Your task to perform on an android device: open app "Grab" (install if not already installed), go to login, and select forgot password Image 0: 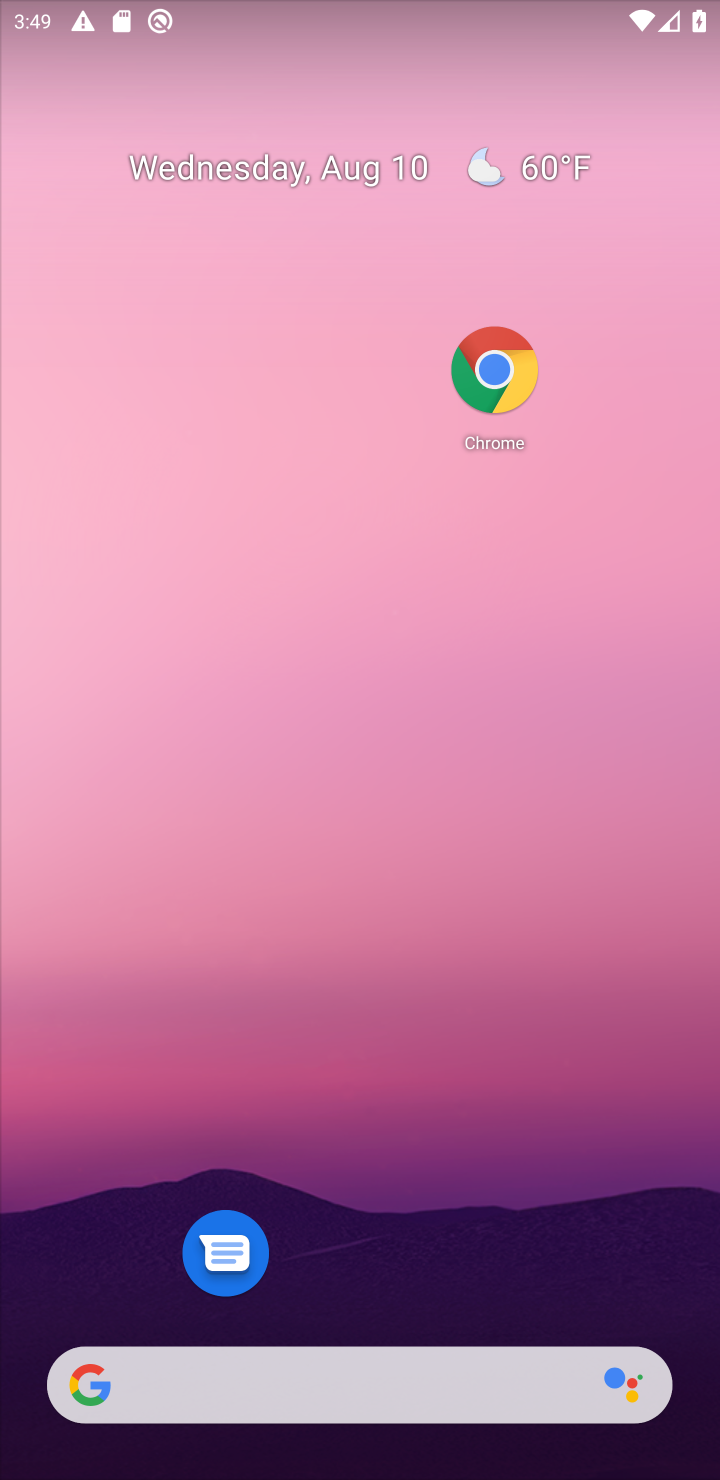
Step 0: drag from (292, 1231) to (288, 237)
Your task to perform on an android device: open app "Grab" (install if not already installed), go to login, and select forgot password Image 1: 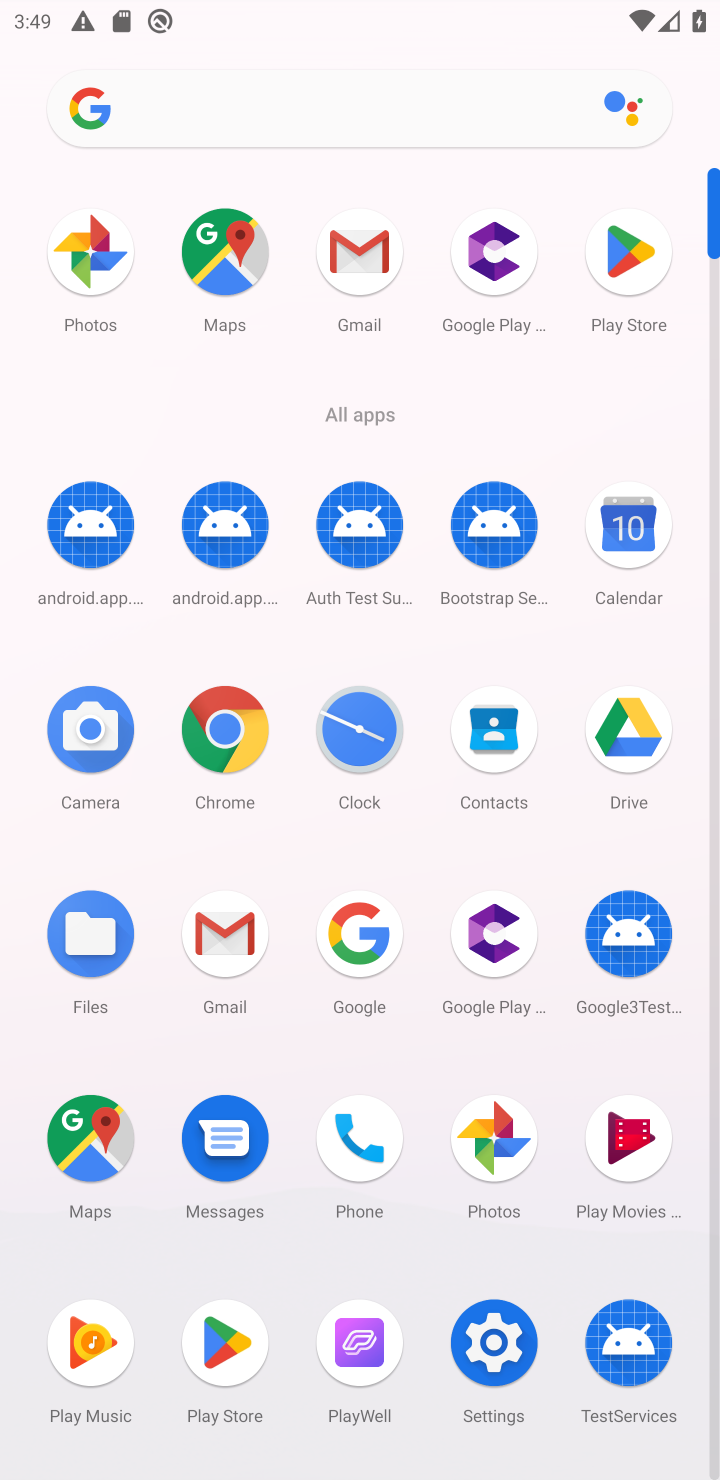
Step 1: click (641, 236)
Your task to perform on an android device: open app "Grab" (install if not already installed), go to login, and select forgot password Image 2: 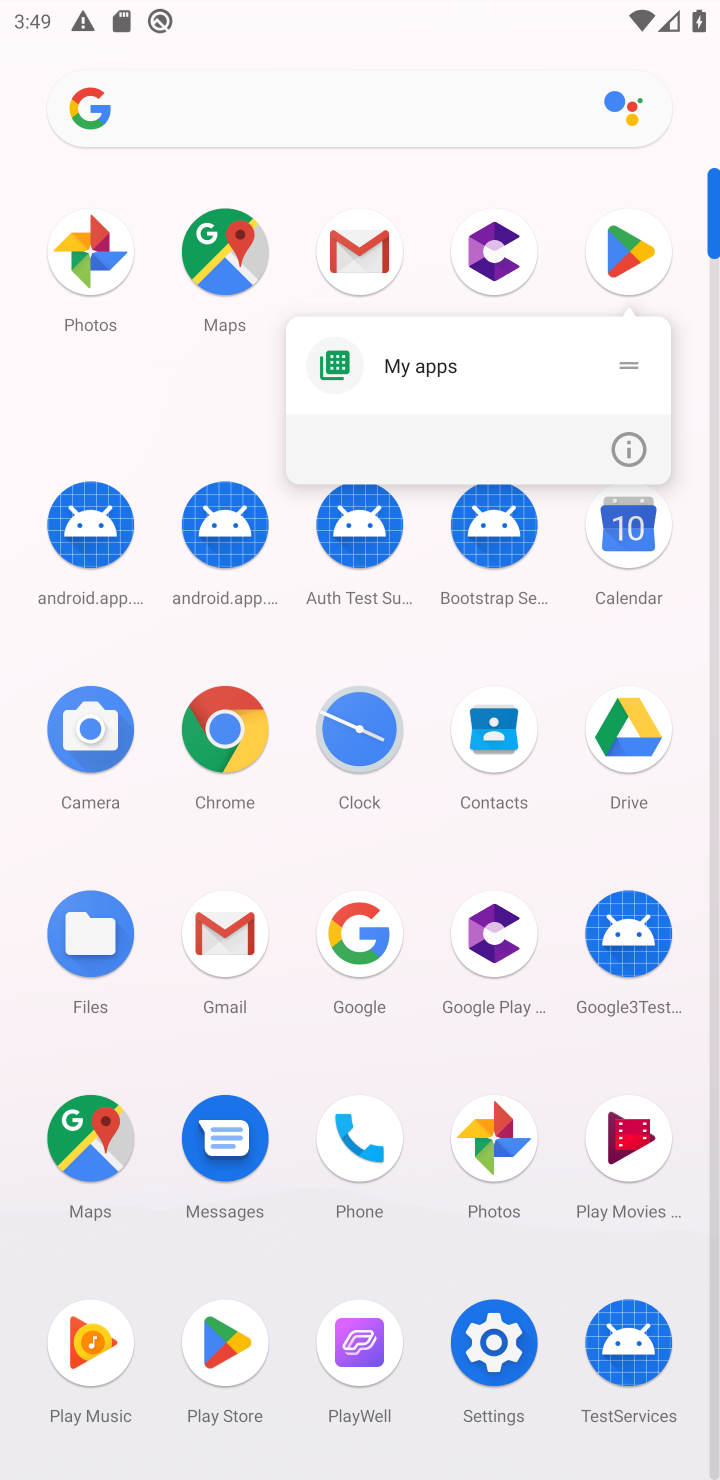
Step 2: click (626, 255)
Your task to perform on an android device: open app "Grab" (install if not already installed), go to login, and select forgot password Image 3: 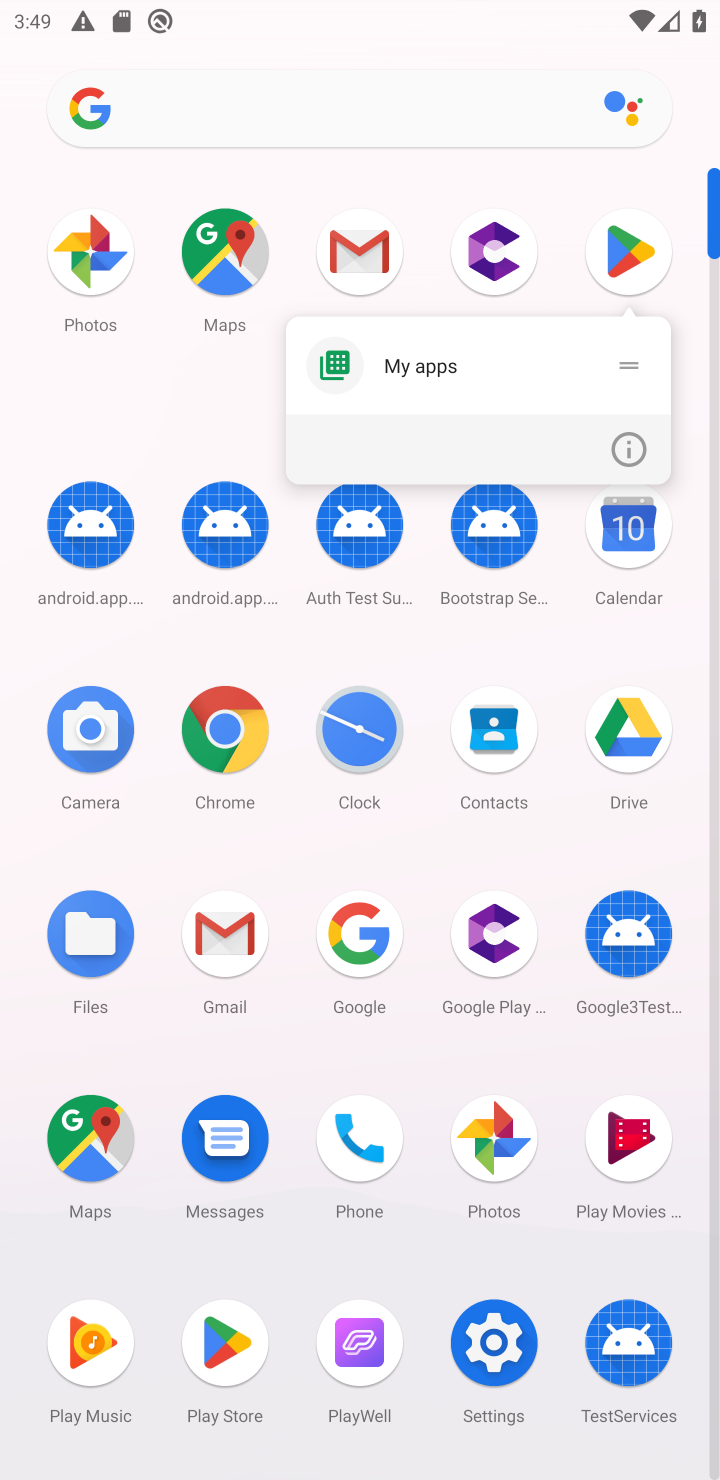
Step 3: click (626, 255)
Your task to perform on an android device: open app "Grab" (install if not already installed), go to login, and select forgot password Image 4: 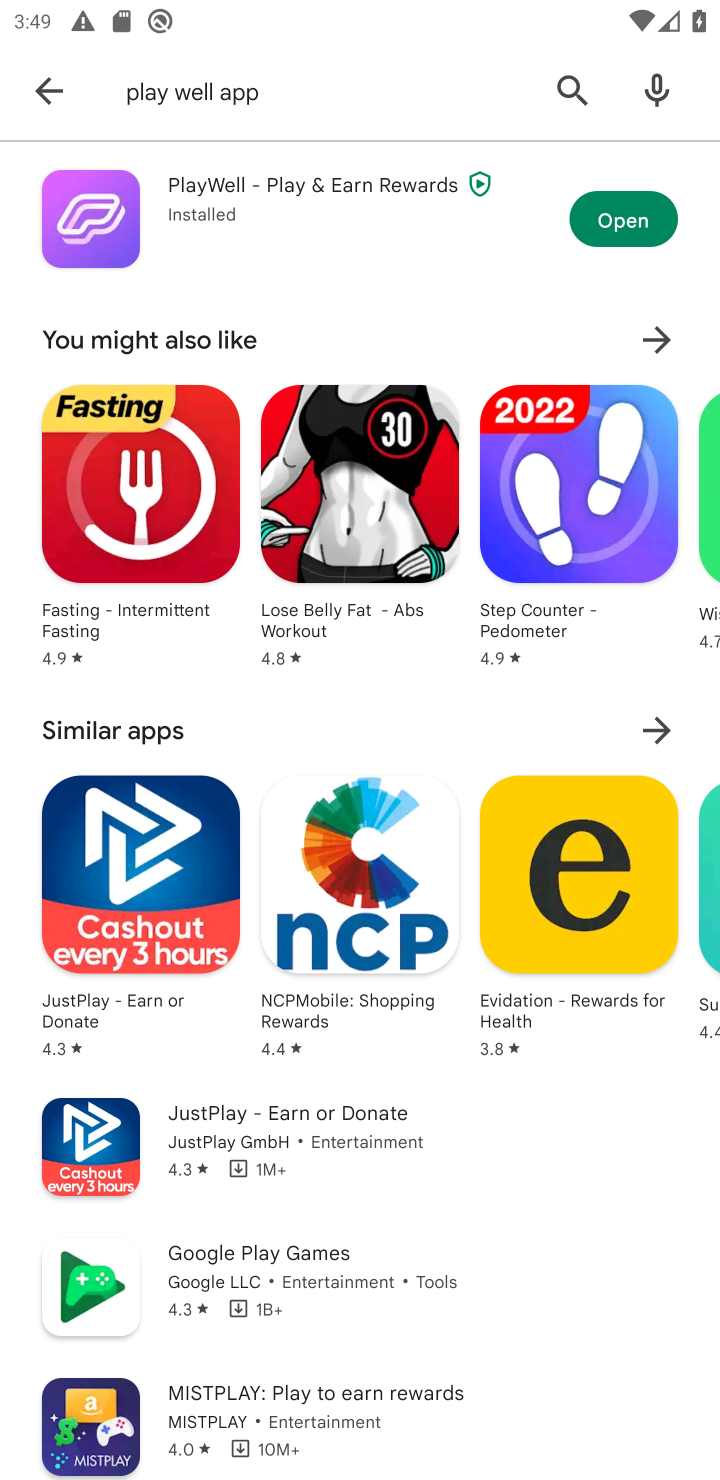
Step 4: click (37, 85)
Your task to perform on an android device: open app "Grab" (install if not already installed), go to login, and select forgot password Image 5: 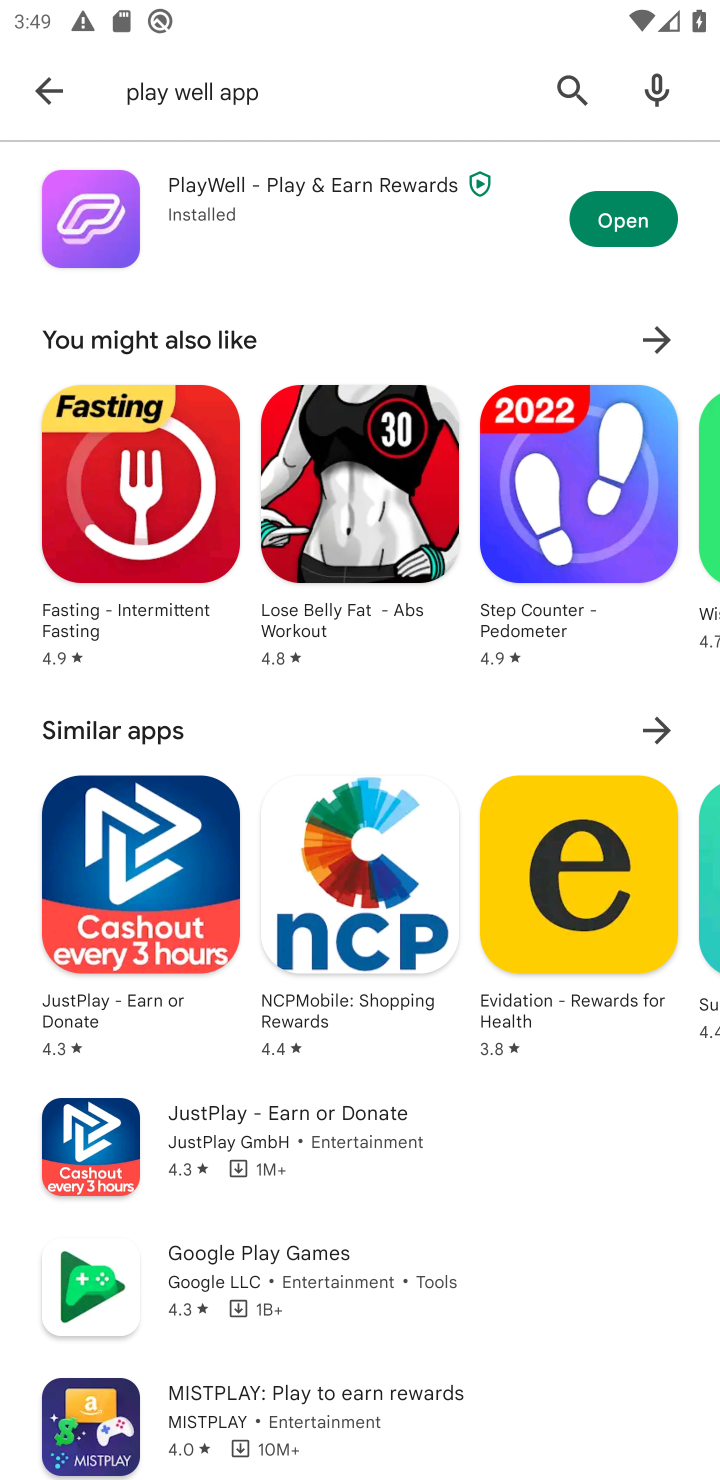
Step 5: click (46, 92)
Your task to perform on an android device: open app "Grab" (install if not already installed), go to login, and select forgot password Image 6: 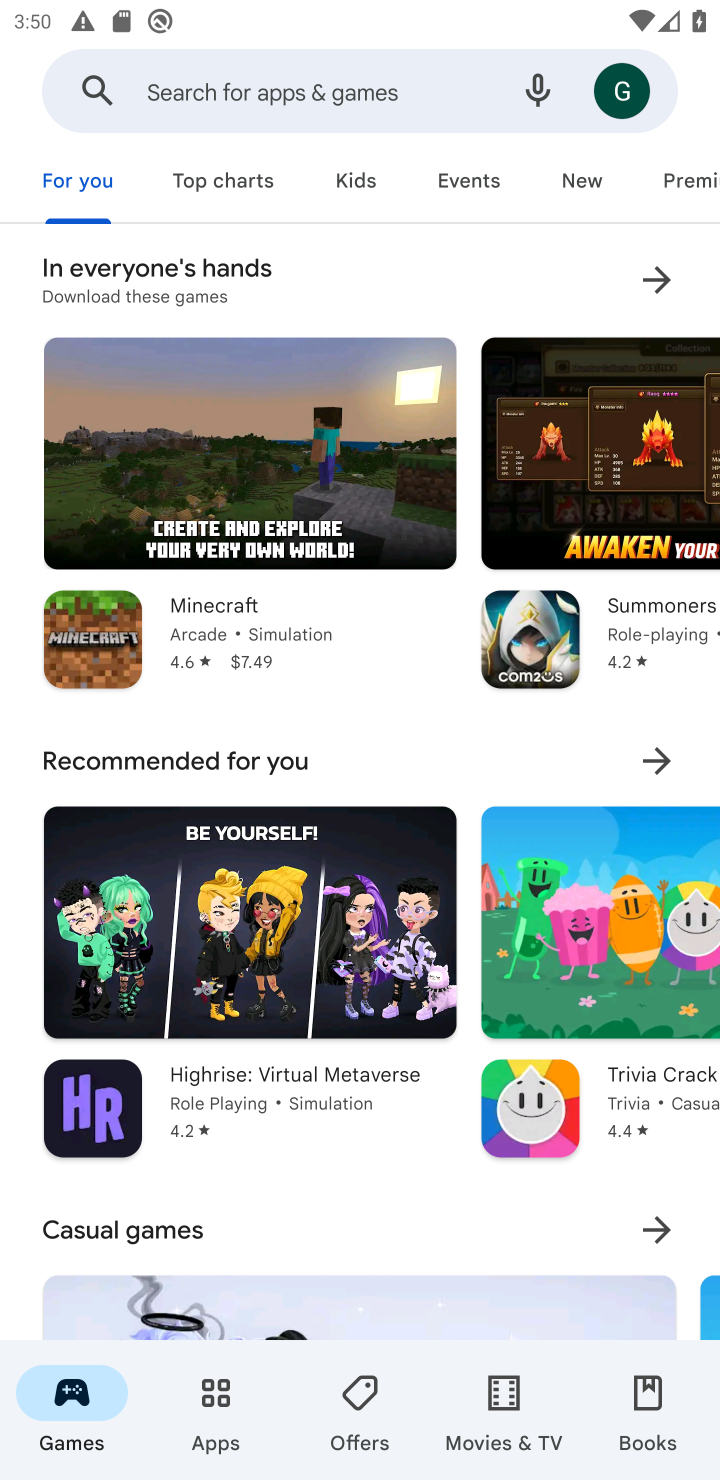
Step 6: click (187, 97)
Your task to perform on an android device: open app "Grab" (install if not already installed), go to login, and select forgot password Image 7: 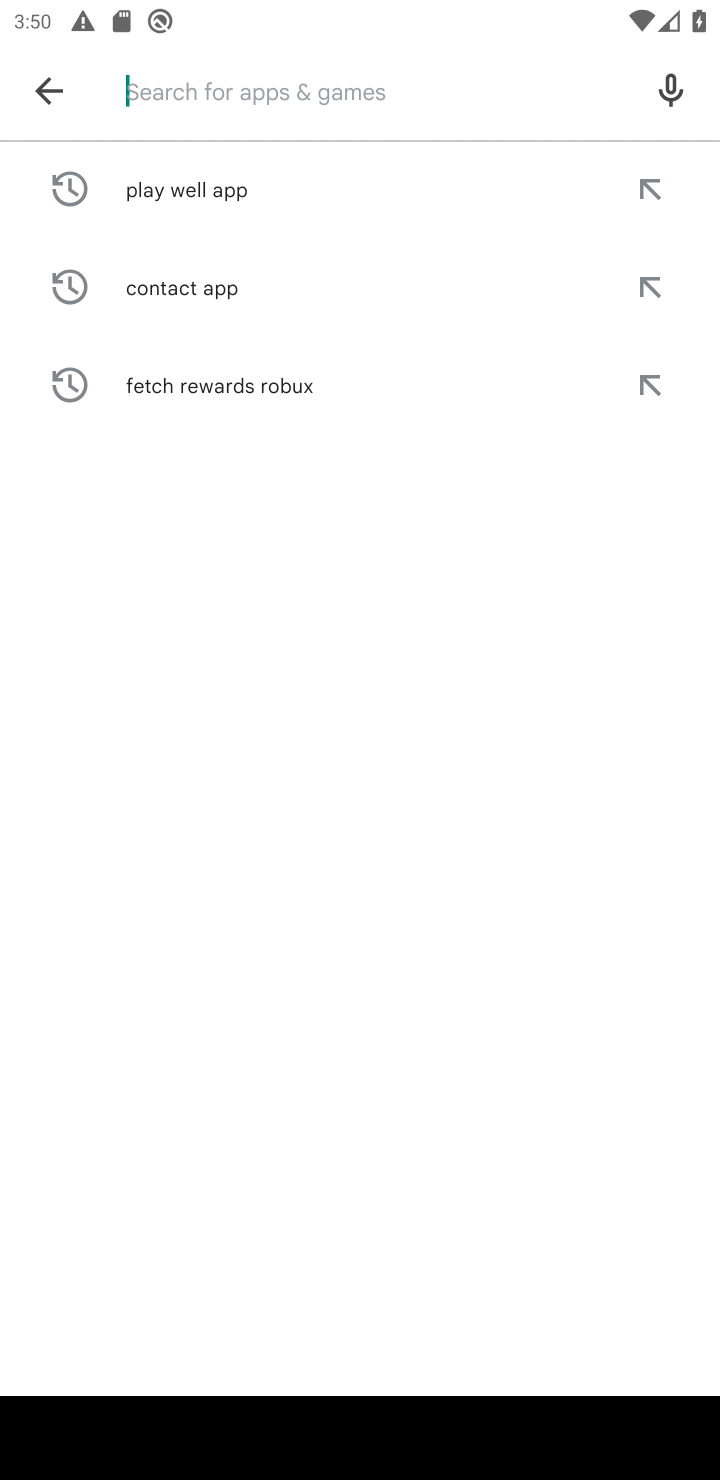
Step 7: type "Grab "
Your task to perform on an android device: open app "Grab" (install if not already installed), go to login, and select forgot password Image 8: 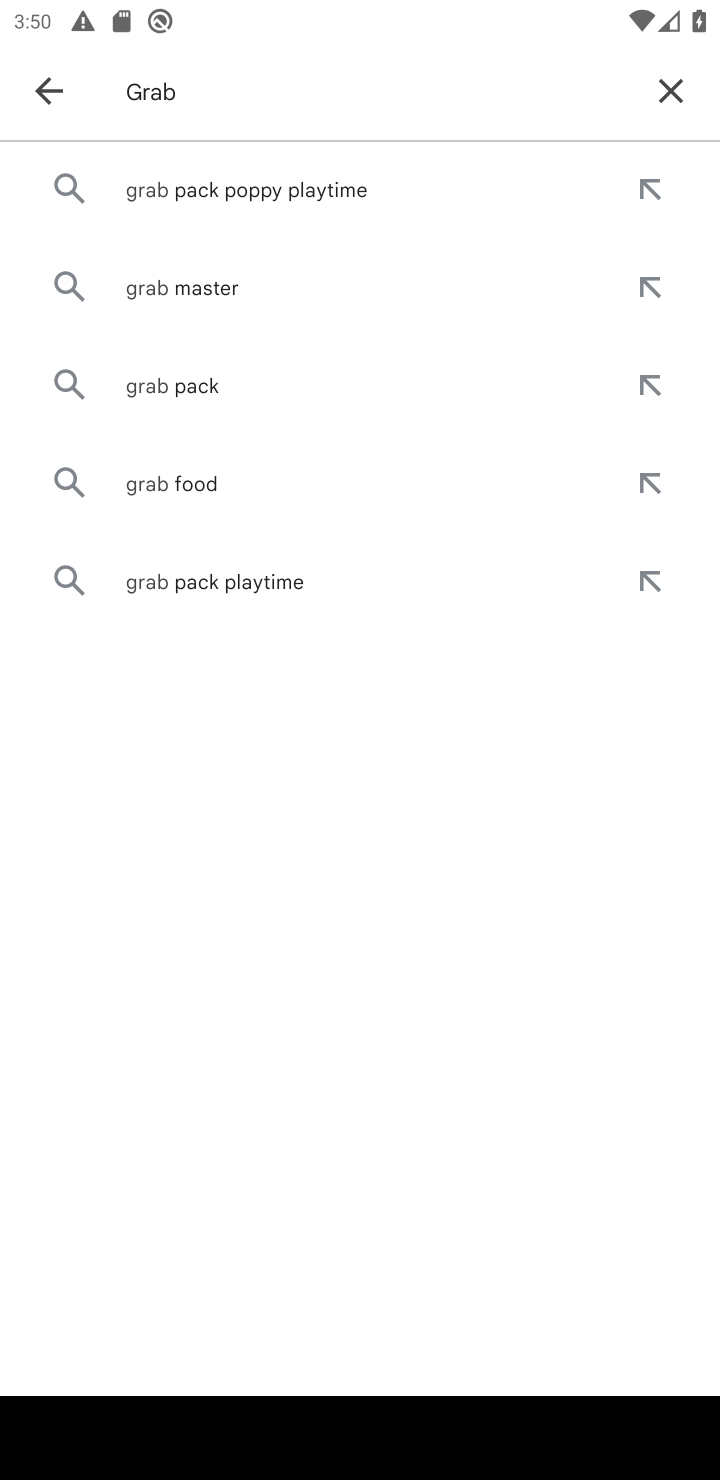
Step 8: click (216, 204)
Your task to perform on an android device: open app "Grab" (install if not already installed), go to login, and select forgot password Image 9: 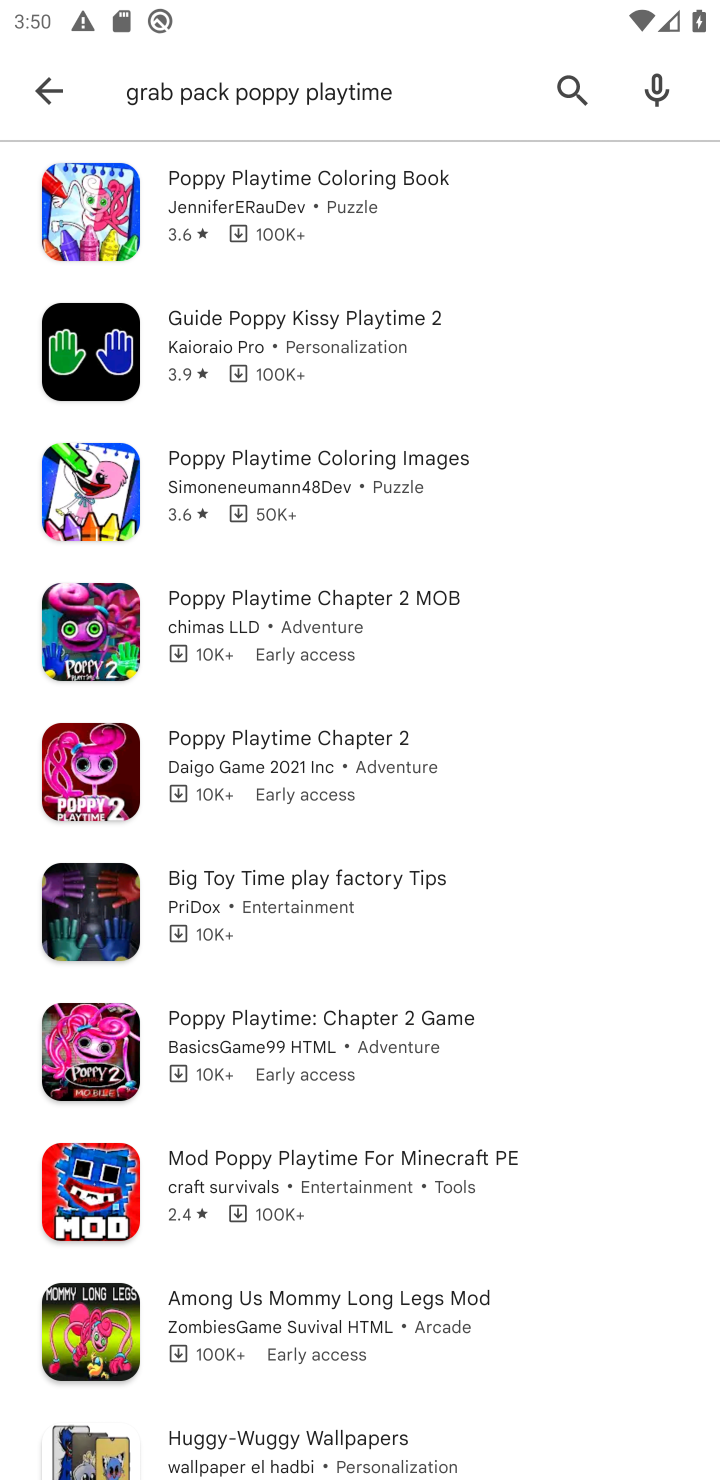
Step 9: task complete